Your task to perform on an android device: toggle priority inbox in the gmail app Image 0: 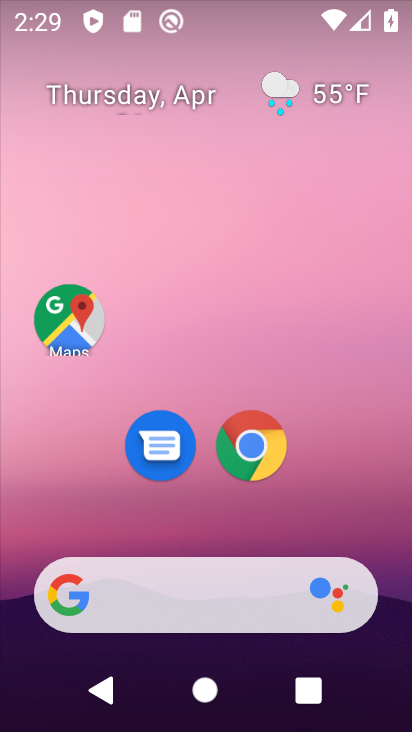
Step 0: drag from (204, 722) to (172, 113)
Your task to perform on an android device: toggle priority inbox in the gmail app Image 1: 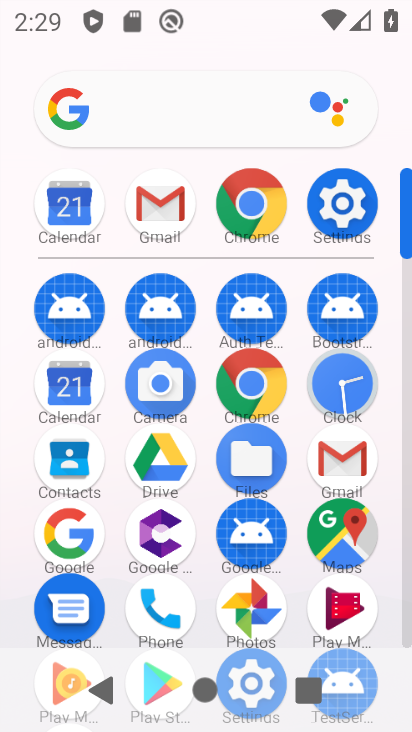
Step 1: click (161, 200)
Your task to perform on an android device: toggle priority inbox in the gmail app Image 2: 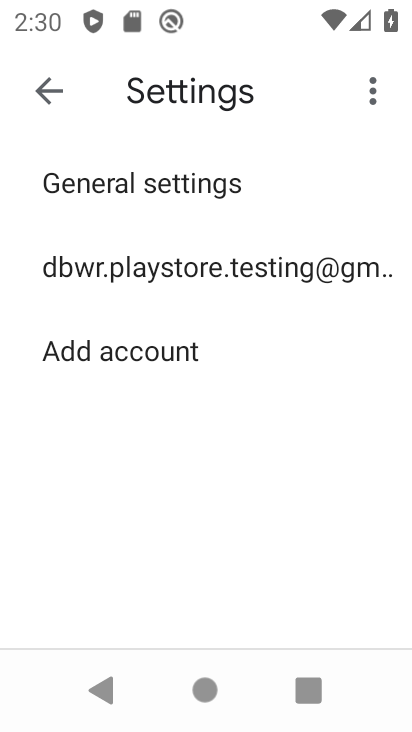
Step 2: click (202, 266)
Your task to perform on an android device: toggle priority inbox in the gmail app Image 3: 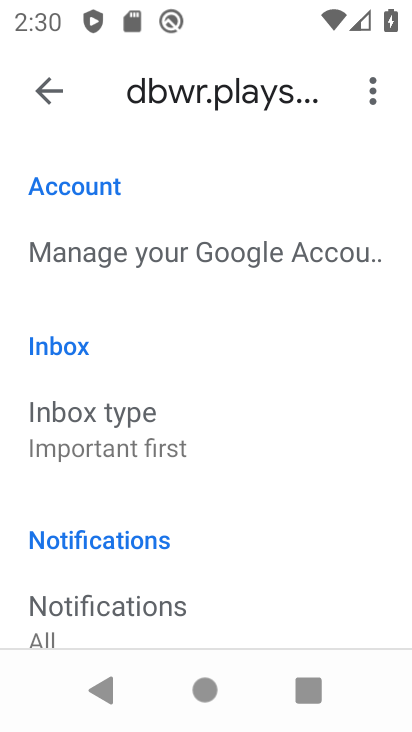
Step 3: click (100, 437)
Your task to perform on an android device: toggle priority inbox in the gmail app Image 4: 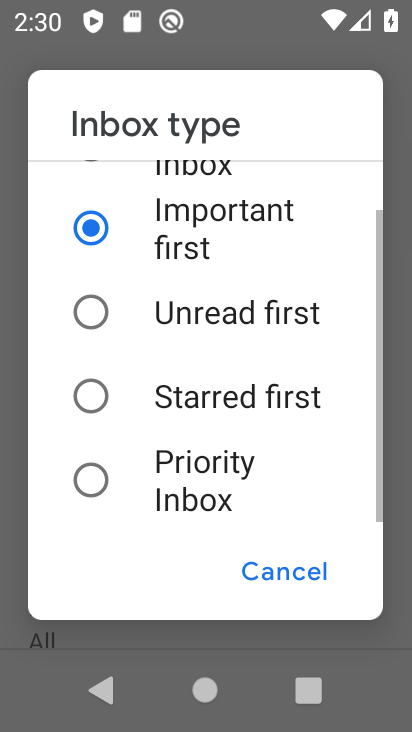
Step 4: click (92, 477)
Your task to perform on an android device: toggle priority inbox in the gmail app Image 5: 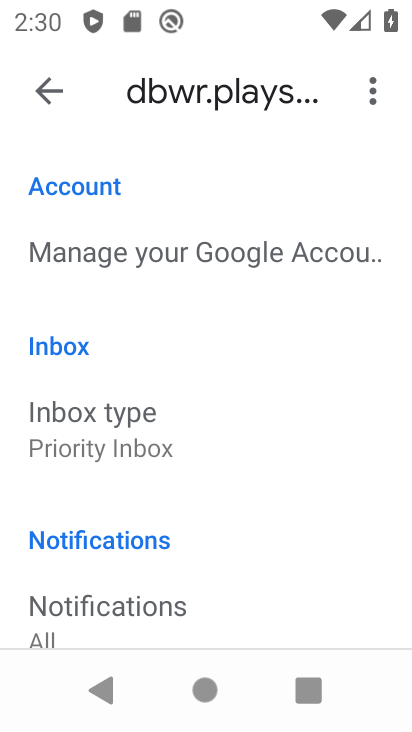
Step 5: task complete